Your task to perform on an android device: turn off improve location accuracy Image 0: 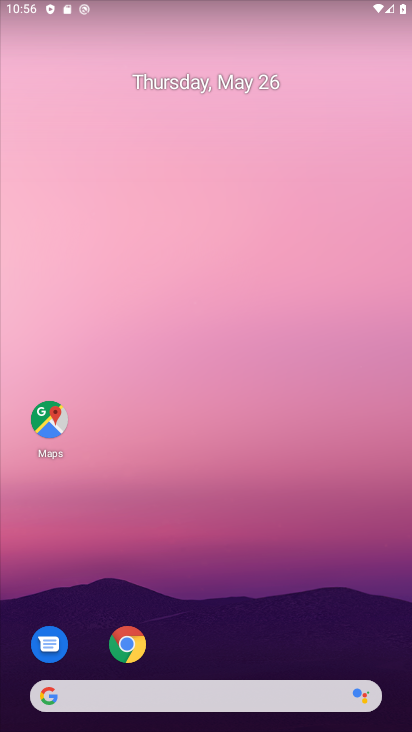
Step 0: drag from (110, 728) to (167, 10)
Your task to perform on an android device: turn off improve location accuracy Image 1: 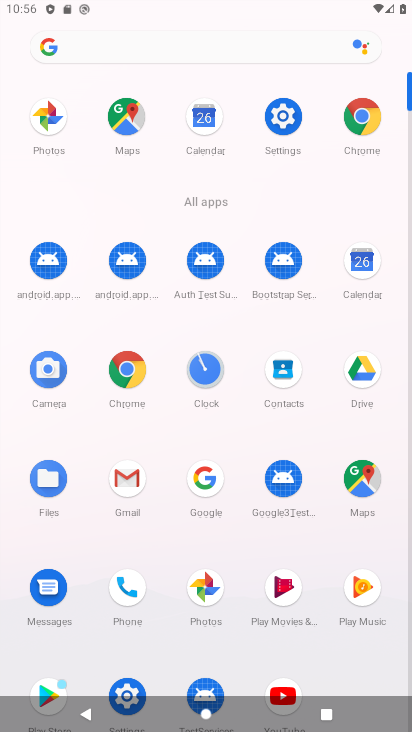
Step 1: click (284, 128)
Your task to perform on an android device: turn off improve location accuracy Image 2: 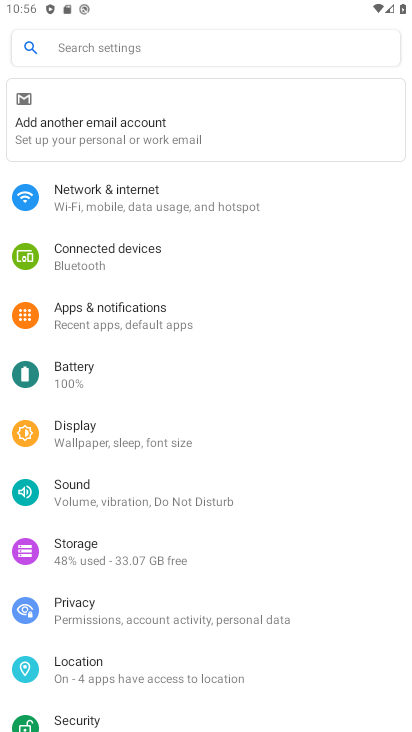
Step 2: click (125, 672)
Your task to perform on an android device: turn off improve location accuracy Image 3: 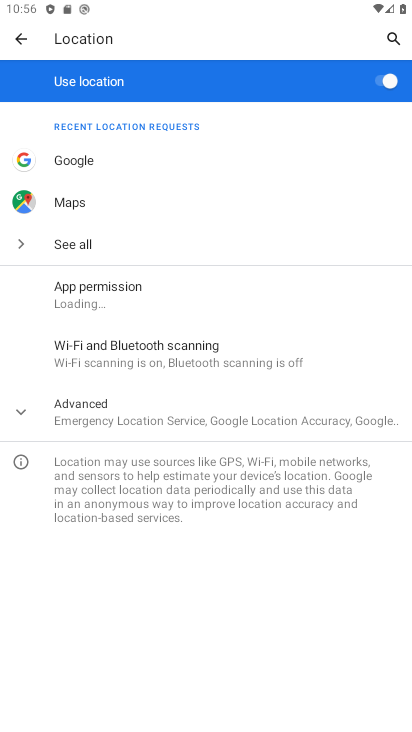
Step 3: click (135, 416)
Your task to perform on an android device: turn off improve location accuracy Image 4: 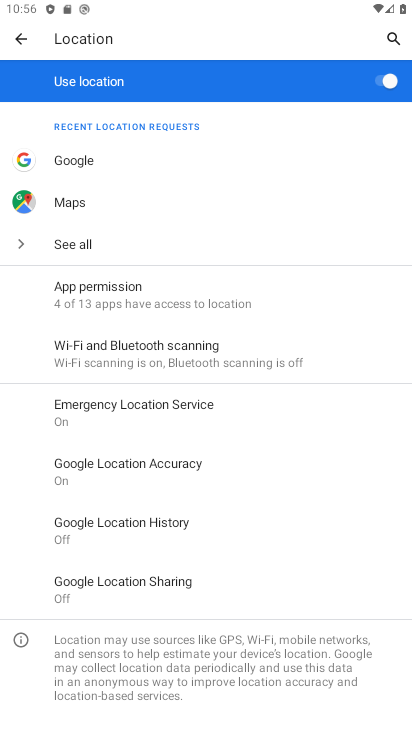
Step 4: click (169, 478)
Your task to perform on an android device: turn off improve location accuracy Image 5: 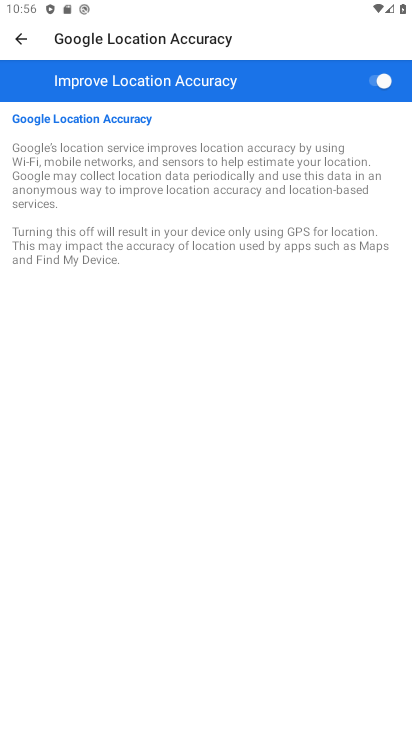
Step 5: click (385, 83)
Your task to perform on an android device: turn off improve location accuracy Image 6: 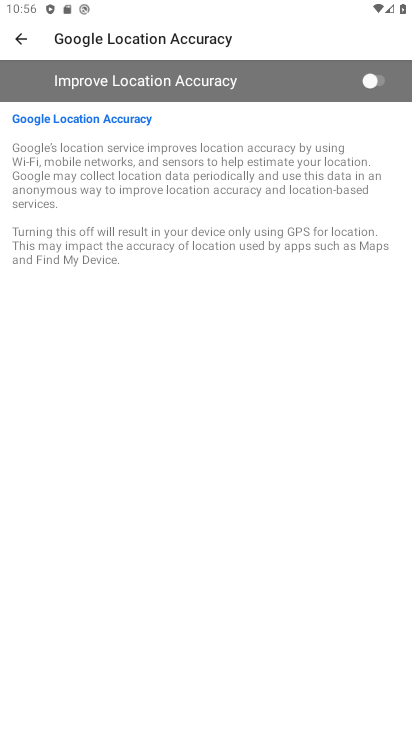
Step 6: task complete